Your task to perform on an android device: Open notification settings Image 0: 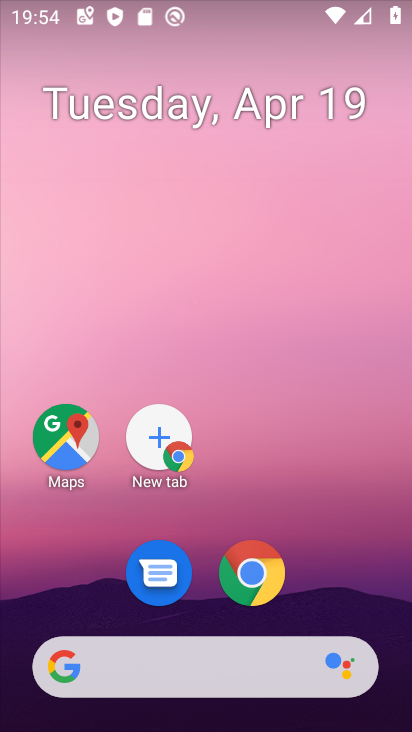
Step 0: drag from (347, 401) to (295, 30)
Your task to perform on an android device: Open notification settings Image 1: 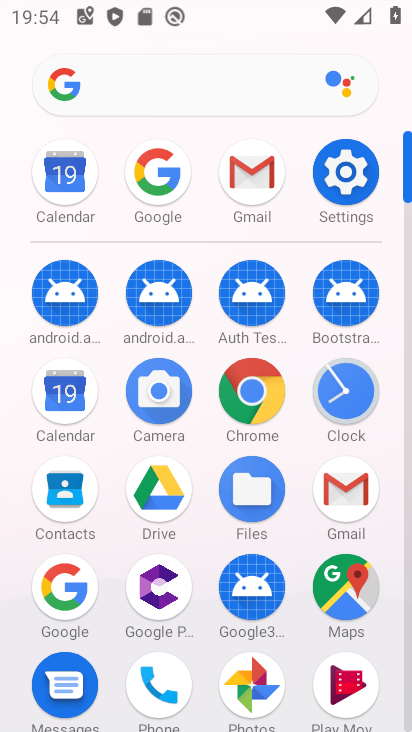
Step 1: click (340, 169)
Your task to perform on an android device: Open notification settings Image 2: 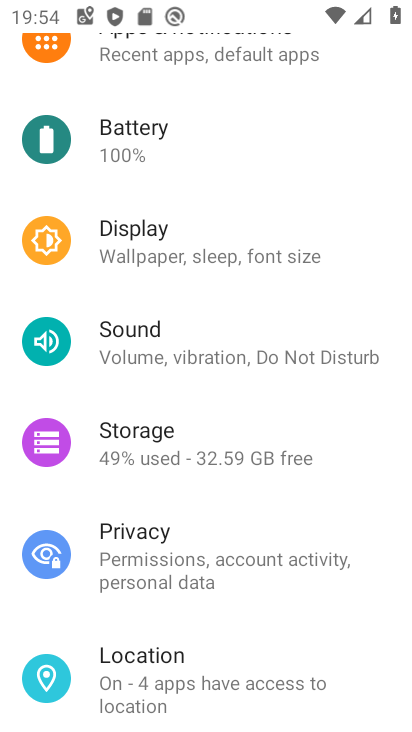
Step 2: drag from (294, 127) to (341, 663)
Your task to perform on an android device: Open notification settings Image 3: 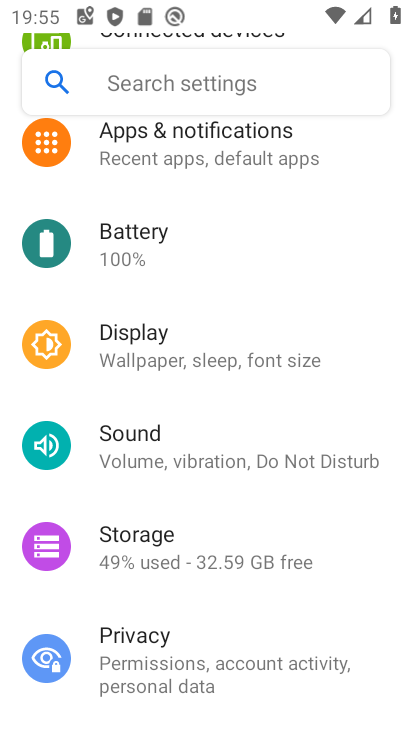
Step 3: click (193, 129)
Your task to perform on an android device: Open notification settings Image 4: 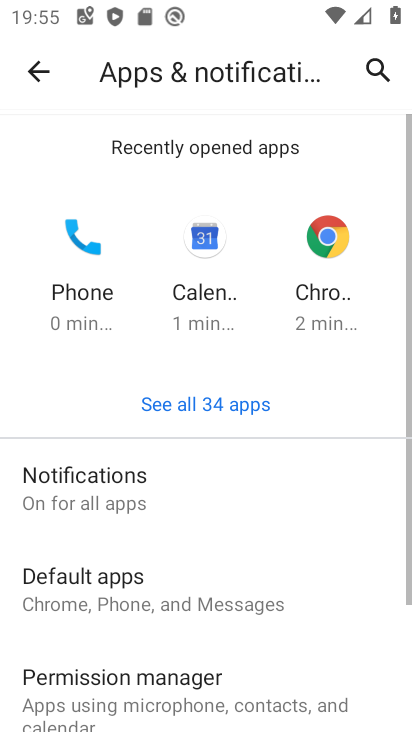
Step 4: drag from (334, 675) to (299, 113)
Your task to perform on an android device: Open notification settings Image 5: 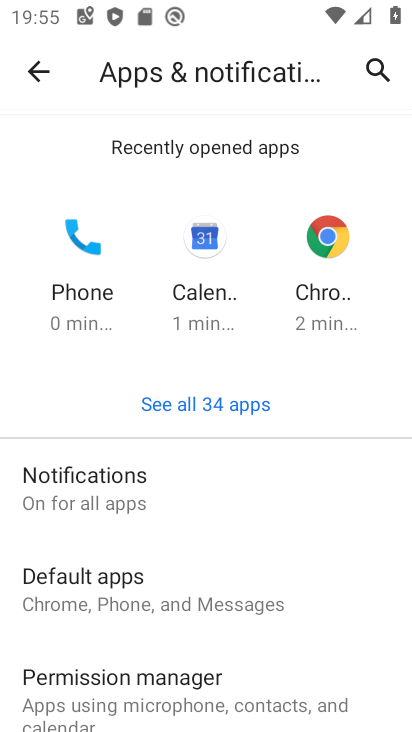
Step 5: drag from (296, 650) to (237, 154)
Your task to perform on an android device: Open notification settings Image 6: 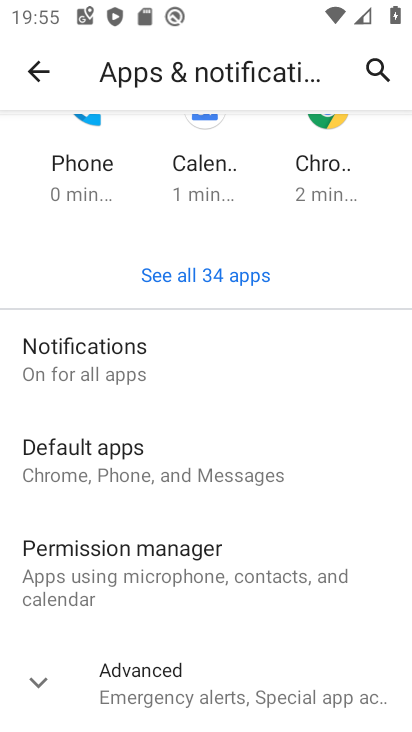
Step 6: drag from (318, 595) to (268, 129)
Your task to perform on an android device: Open notification settings Image 7: 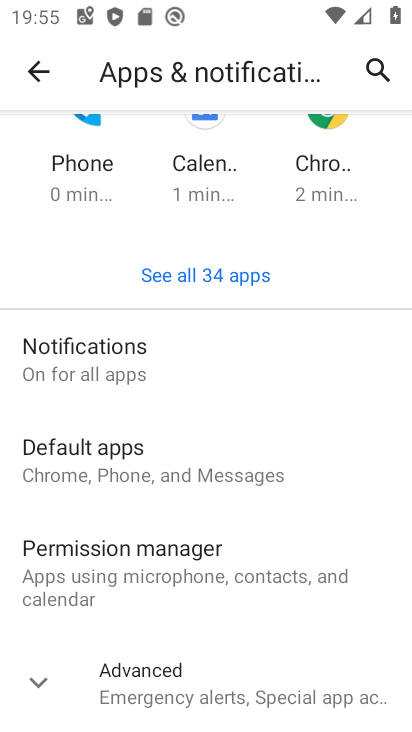
Step 7: click (290, 218)
Your task to perform on an android device: Open notification settings Image 8: 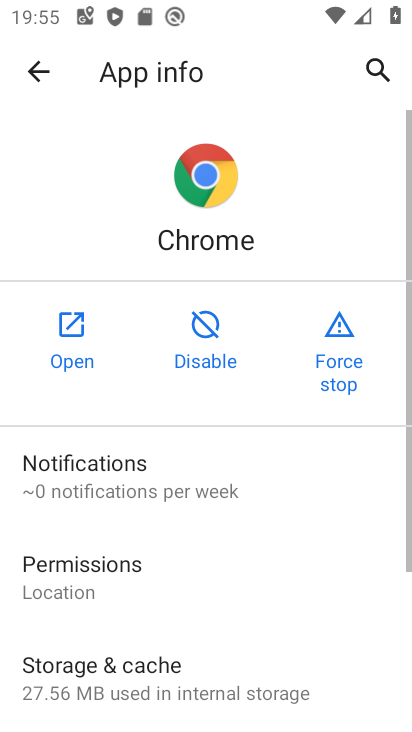
Step 8: task complete